Your task to perform on an android device: Do I have any events today? Image 0: 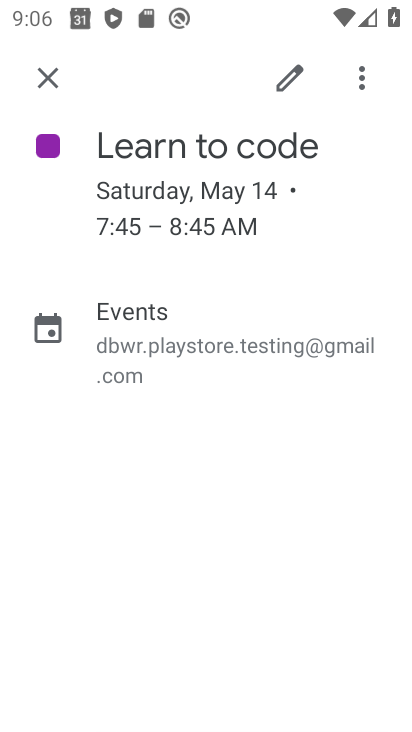
Step 0: click (54, 77)
Your task to perform on an android device: Do I have any events today? Image 1: 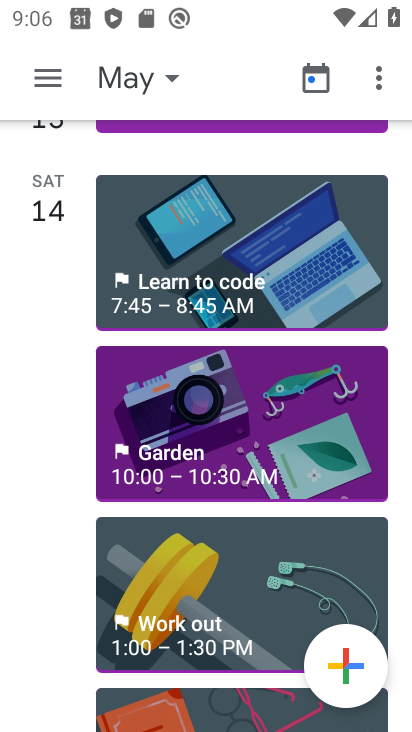
Step 1: press back button
Your task to perform on an android device: Do I have any events today? Image 2: 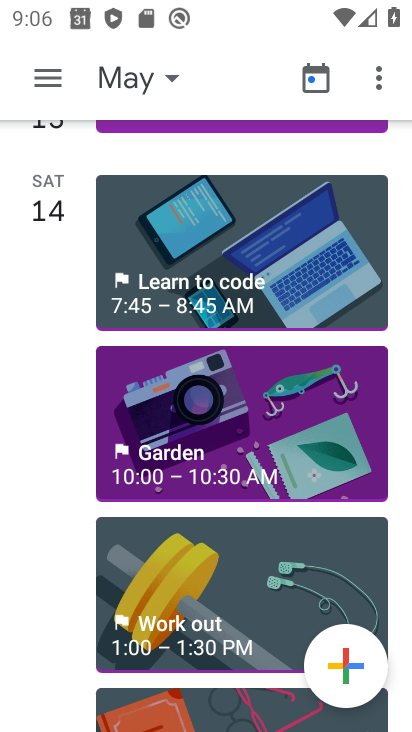
Step 2: press back button
Your task to perform on an android device: Do I have any events today? Image 3: 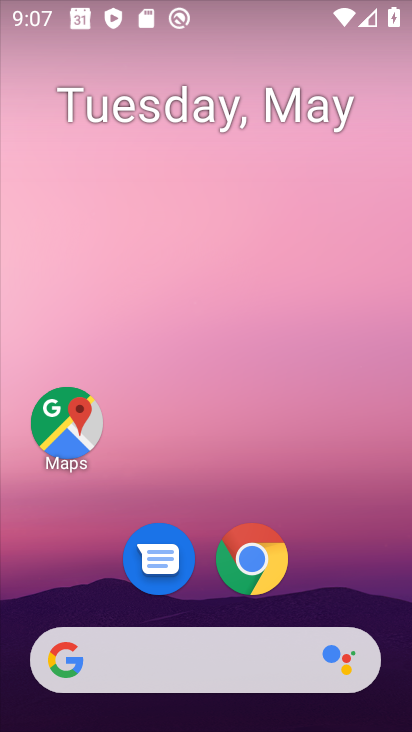
Step 3: drag from (344, 551) to (326, 270)
Your task to perform on an android device: Do I have any events today? Image 4: 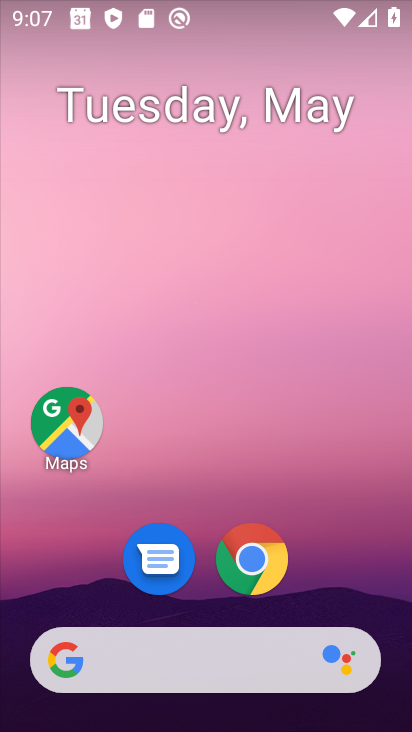
Step 4: drag from (334, 520) to (203, 169)
Your task to perform on an android device: Do I have any events today? Image 5: 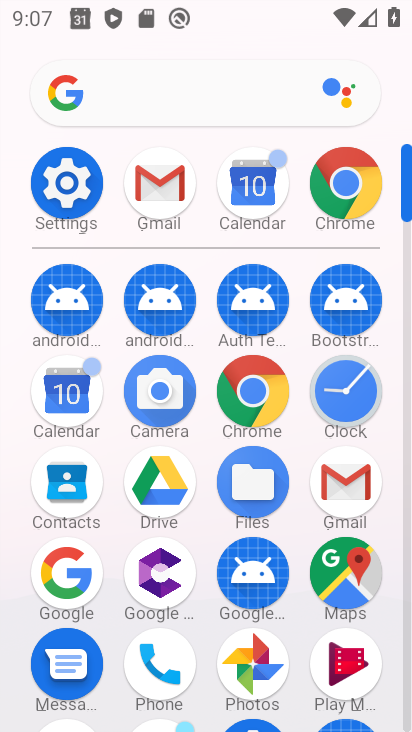
Step 5: click (72, 399)
Your task to perform on an android device: Do I have any events today? Image 6: 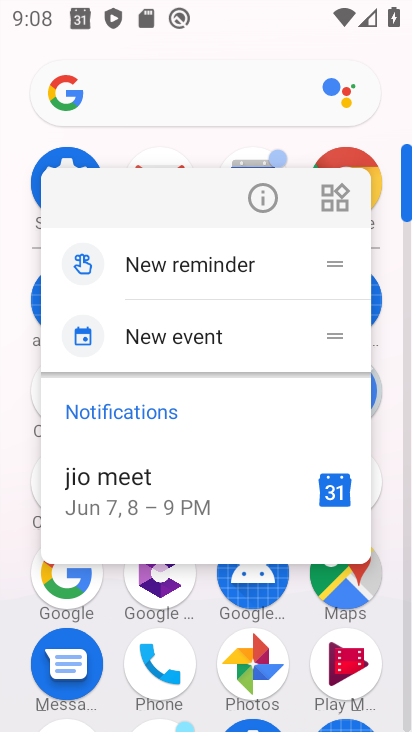
Step 6: press back button
Your task to perform on an android device: Do I have any events today? Image 7: 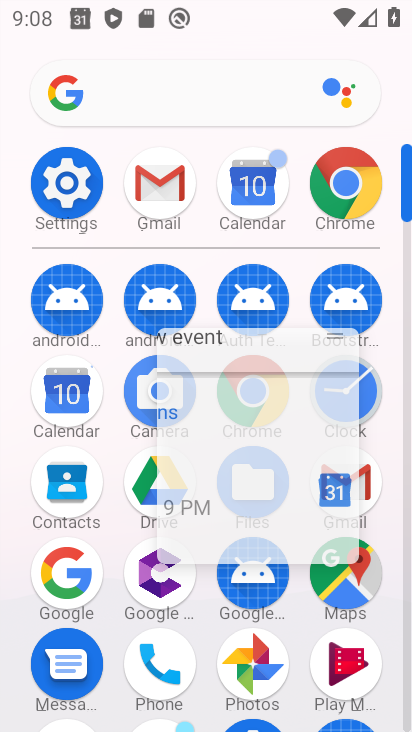
Step 7: press back button
Your task to perform on an android device: Do I have any events today? Image 8: 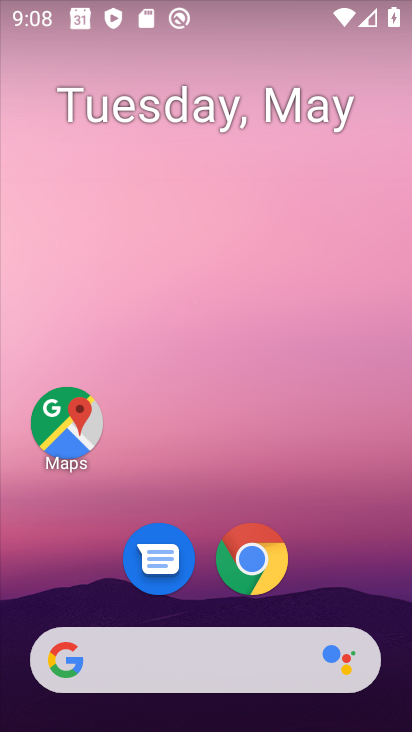
Step 8: drag from (321, 551) to (183, 7)
Your task to perform on an android device: Do I have any events today? Image 9: 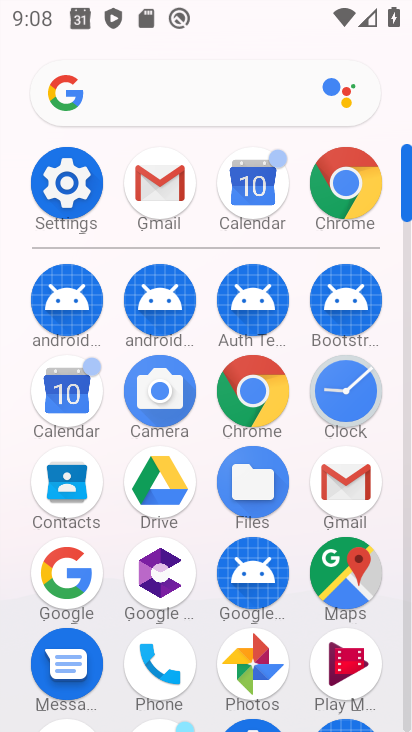
Step 9: click (73, 406)
Your task to perform on an android device: Do I have any events today? Image 10: 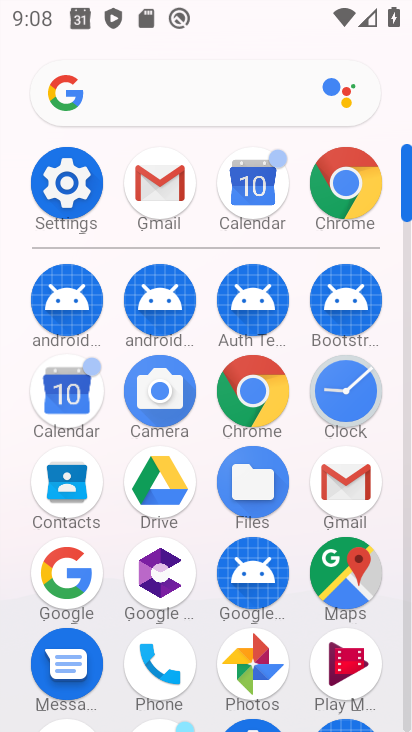
Step 10: click (73, 405)
Your task to perform on an android device: Do I have any events today? Image 11: 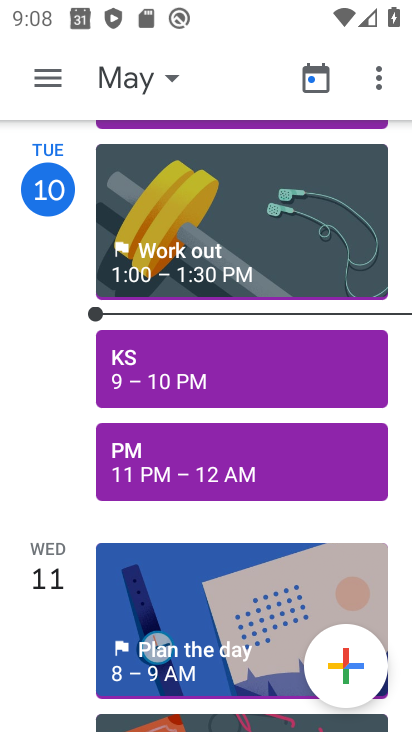
Step 11: click (164, 75)
Your task to perform on an android device: Do I have any events today? Image 12: 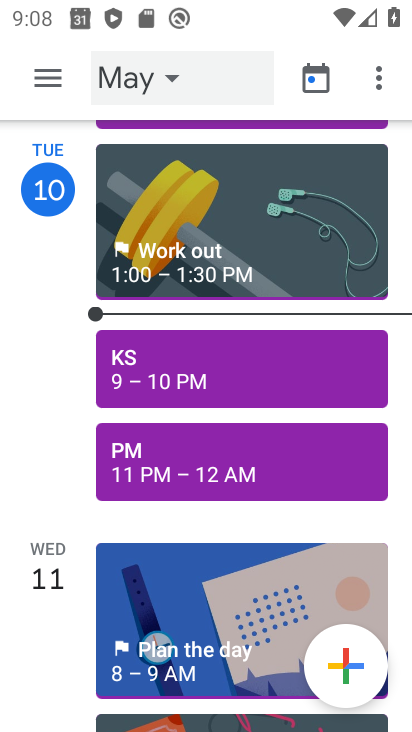
Step 12: click (168, 77)
Your task to perform on an android device: Do I have any events today? Image 13: 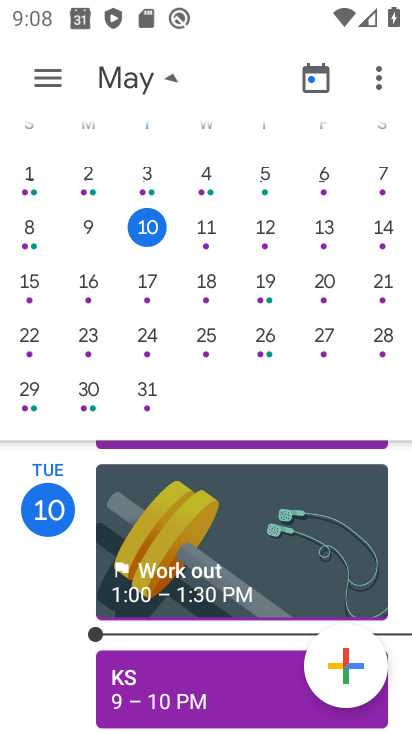
Step 13: click (168, 77)
Your task to perform on an android device: Do I have any events today? Image 14: 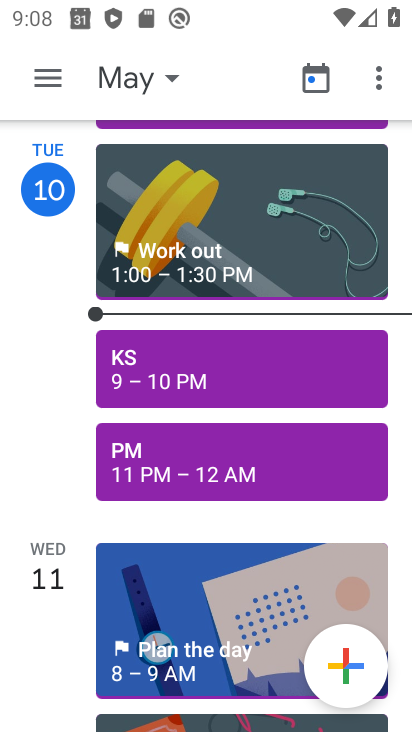
Step 14: drag from (282, 296) to (123, 369)
Your task to perform on an android device: Do I have any events today? Image 15: 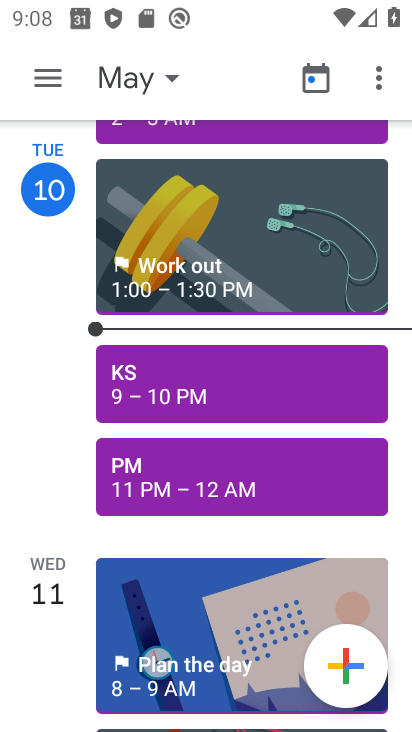
Step 15: click (171, 78)
Your task to perform on an android device: Do I have any events today? Image 16: 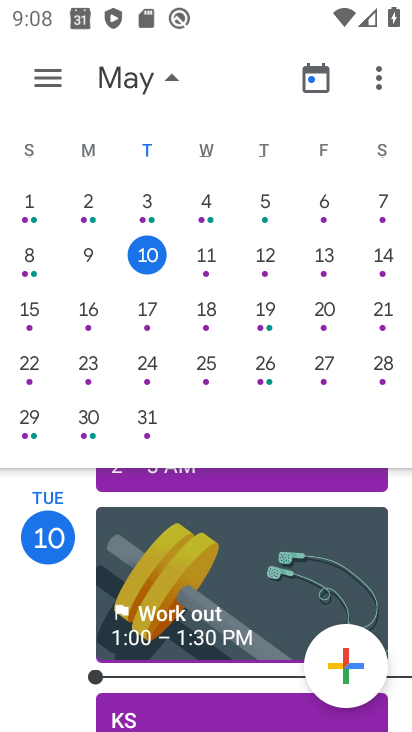
Step 16: drag from (259, 285) to (21, 334)
Your task to perform on an android device: Do I have any events today? Image 17: 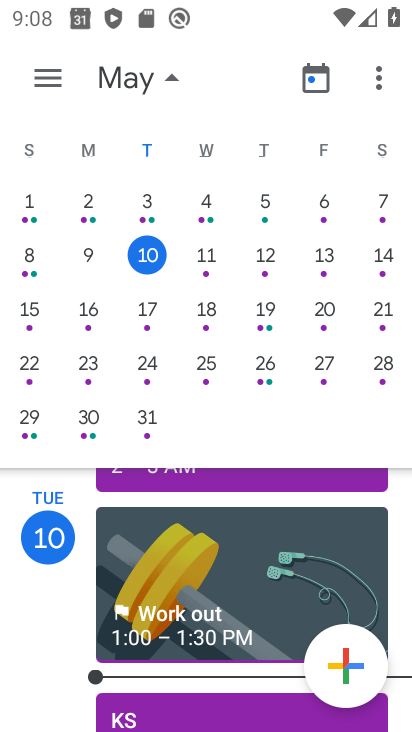
Step 17: drag from (300, 307) to (24, 341)
Your task to perform on an android device: Do I have any events today? Image 18: 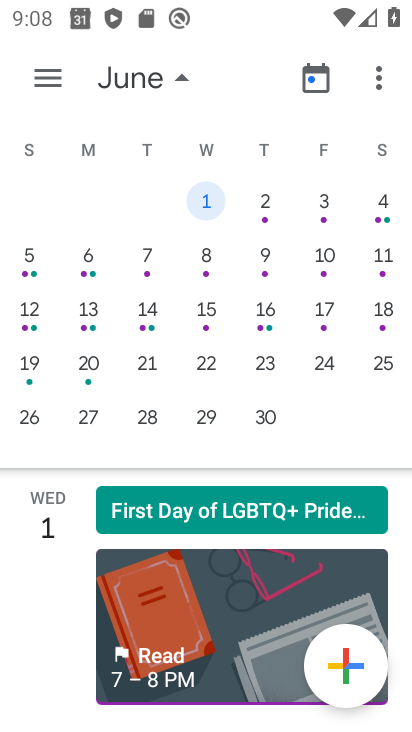
Step 18: drag from (229, 286) to (23, 388)
Your task to perform on an android device: Do I have any events today? Image 19: 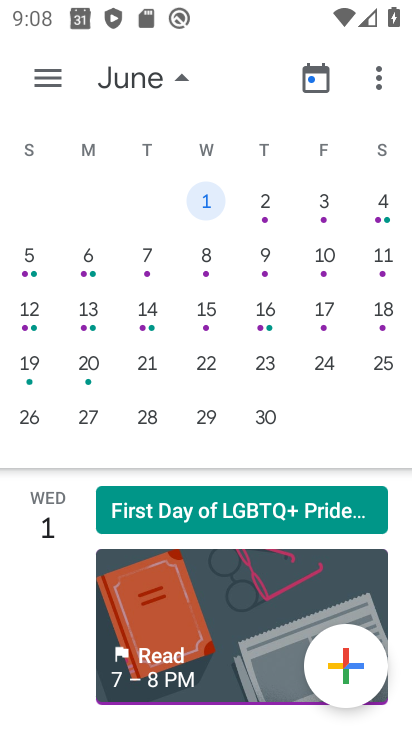
Step 19: drag from (78, 364) to (5, 300)
Your task to perform on an android device: Do I have any events today? Image 20: 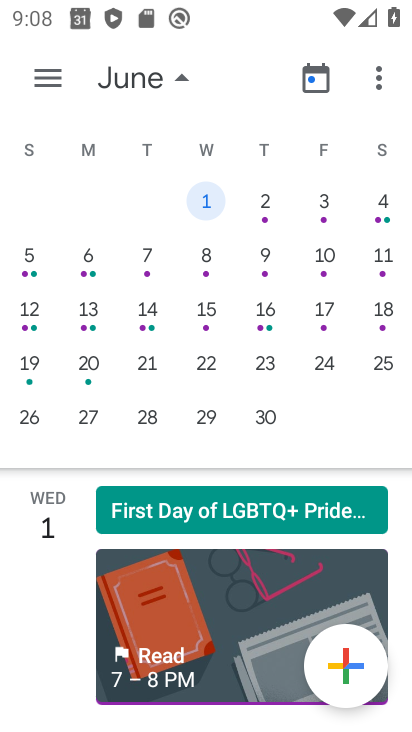
Step 20: drag from (320, 270) to (5, 311)
Your task to perform on an android device: Do I have any events today? Image 21: 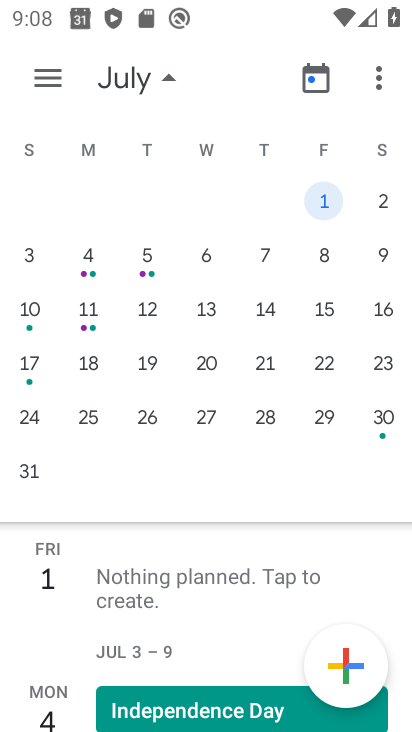
Step 21: drag from (97, 269) to (284, 311)
Your task to perform on an android device: Do I have any events today? Image 22: 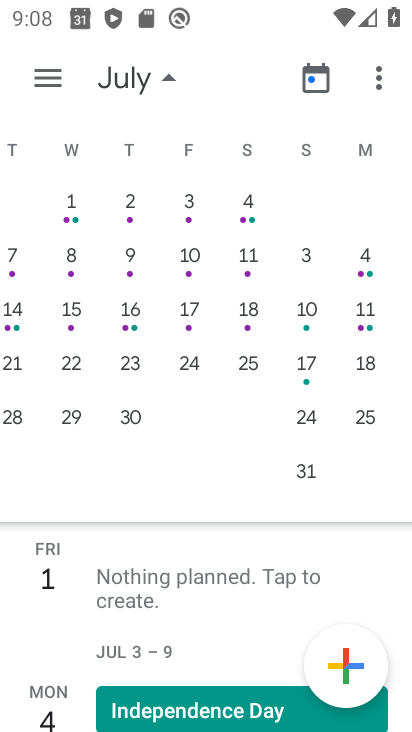
Step 22: drag from (179, 332) to (397, 347)
Your task to perform on an android device: Do I have any events today? Image 23: 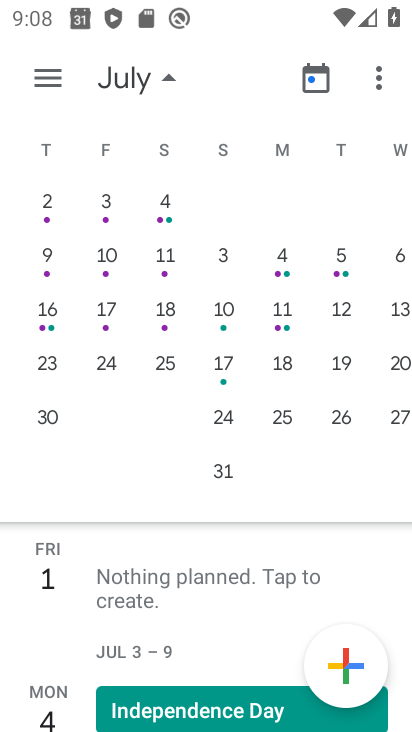
Step 23: drag from (113, 317) to (401, 293)
Your task to perform on an android device: Do I have any events today? Image 24: 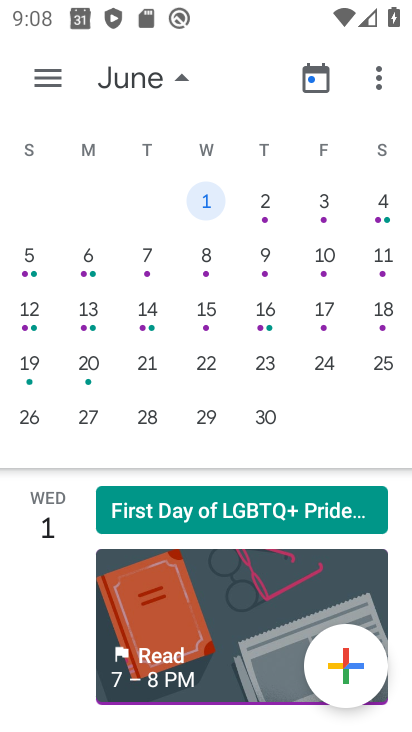
Step 24: drag from (373, 280) to (407, 260)
Your task to perform on an android device: Do I have any events today? Image 25: 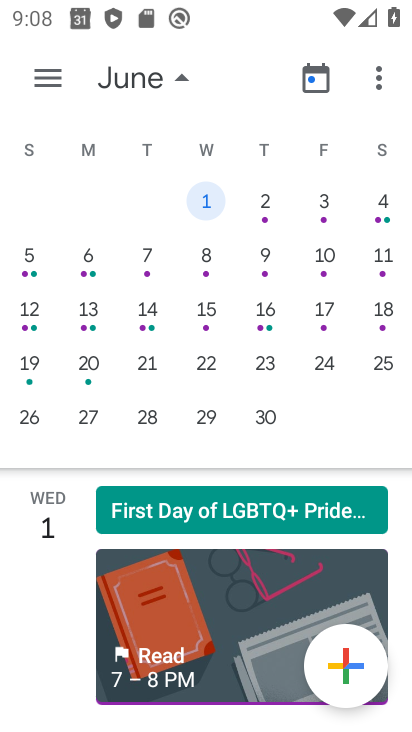
Step 25: drag from (123, 250) to (385, 295)
Your task to perform on an android device: Do I have any events today? Image 26: 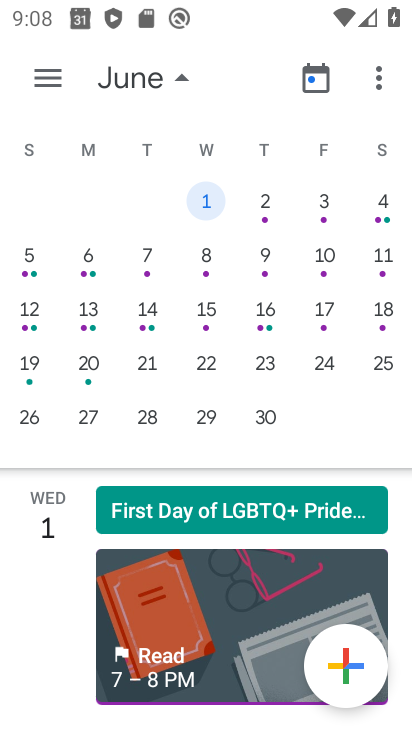
Step 26: drag from (71, 320) to (400, 319)
Your task to perform on an android device: Do I have any events today? Image 27: 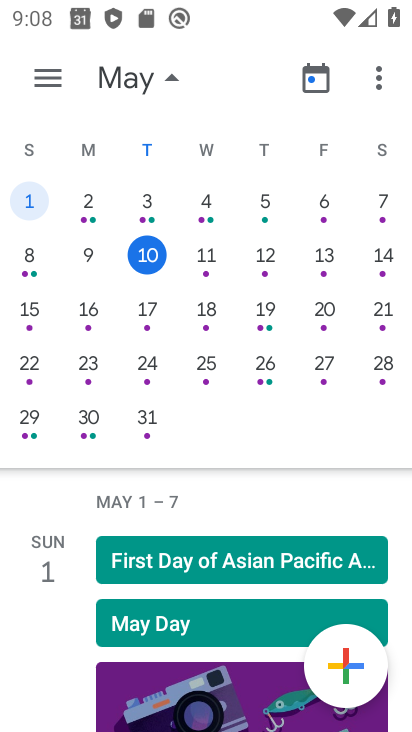
Step 27: drag from (229, 292) to (42, 335)
Your task to perform on an android device: Do I have any events today? Image 28: 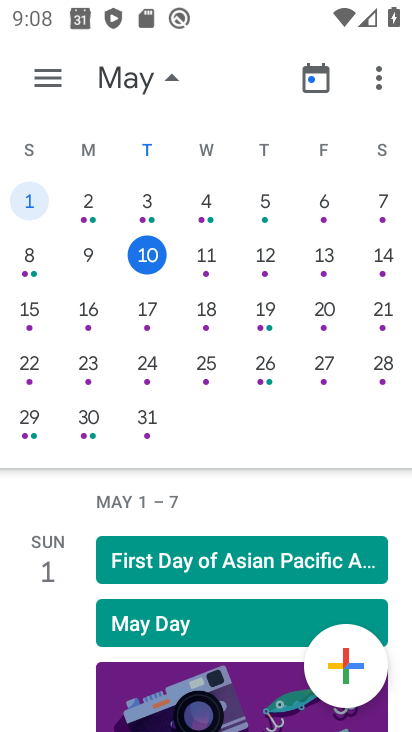
Step 28: drag from (302, 286) to (94, 321)
Your task to perform on an android device: Do I have any events today? Image 29: 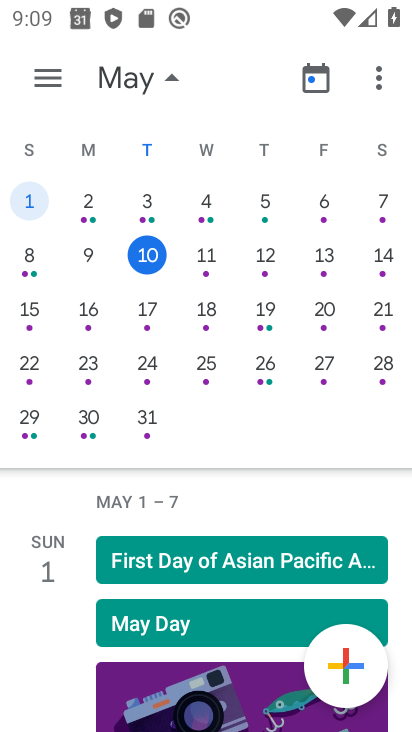
Step 29: drag from (212, 306) to (3, 311)
Your task to perform on an android device: Do I have any events today? Image 30: 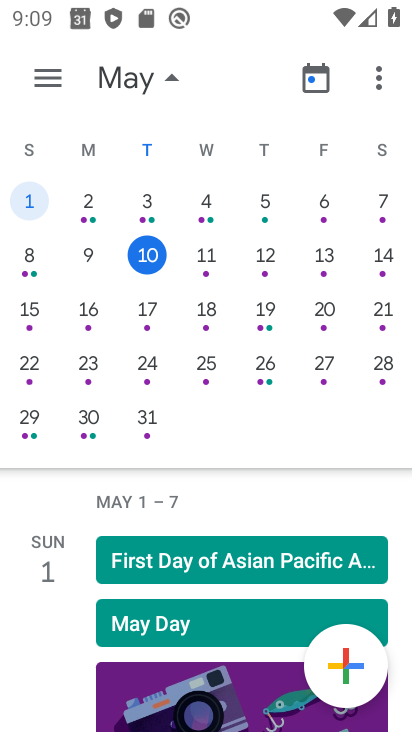
Step 30: drag from (197, 291) to (37, 254)
Your task to perform on an android device: Do I have any events today? Image 31: 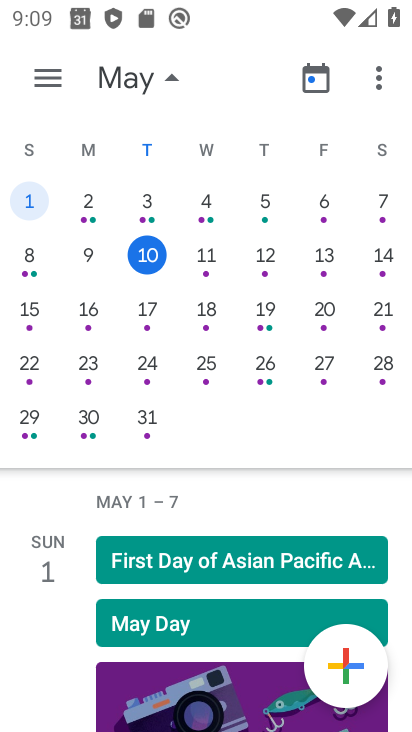
Step 31: drag from (118, 317) to (5, 318)
Your task to perform on an android device: Do I have any events today? Image 32: 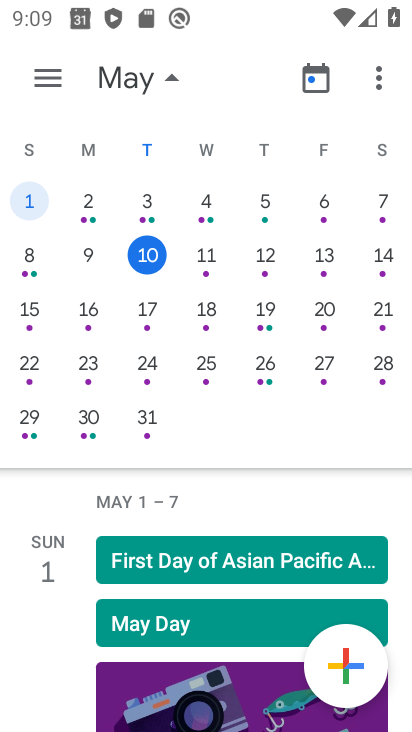
Step 32: drag from (264, 325) to (36, 319)
Your task to perform on an android device: Do I have any events today? Image 33: 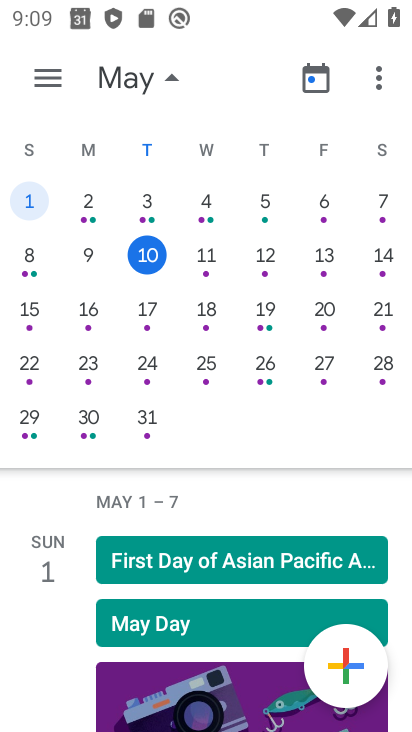
Step 33: drag from (200, 324) to (27, 308)
Your task to perform on an android device: Do I have any events today? Image 34: 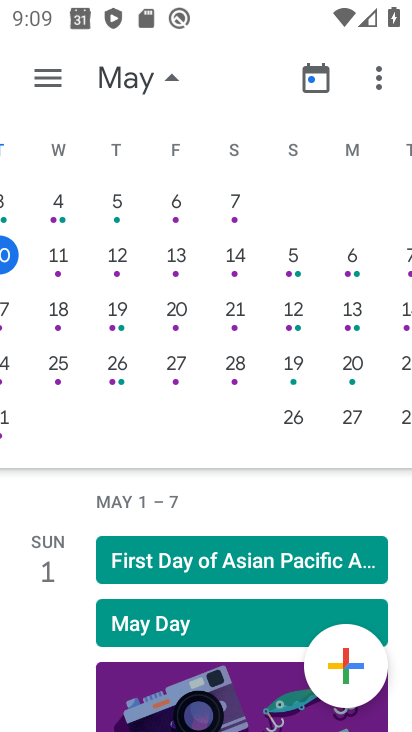
Step 34: drag from (220, 298) to (43, 299)
Your task to perform on an android device: Do I have any events today? Image 35: 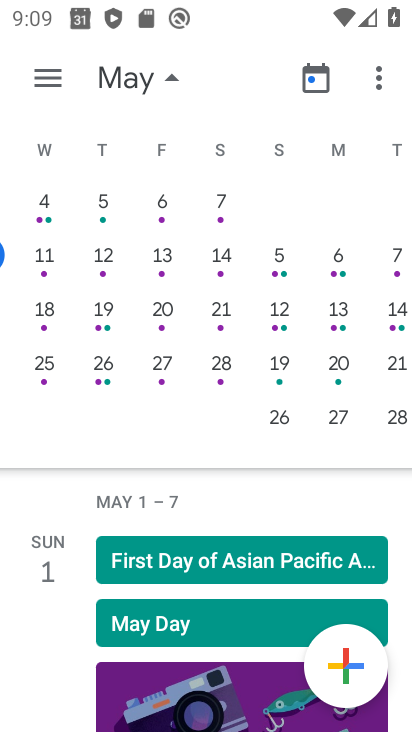
Step 35: drag from (177, 305) to (53, 304)
Your task to perform on an android device: Do I have any events today? Image 36: 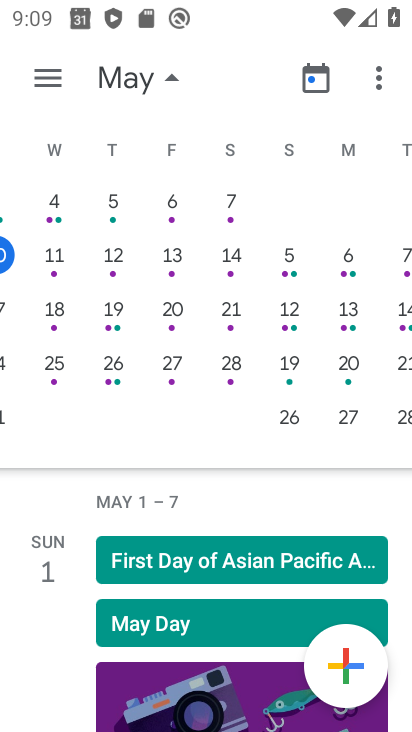
Step 36: drag from (286, 306) to (24, 312)
Your task to perform on an android device: Do I have any events today? Image 37: 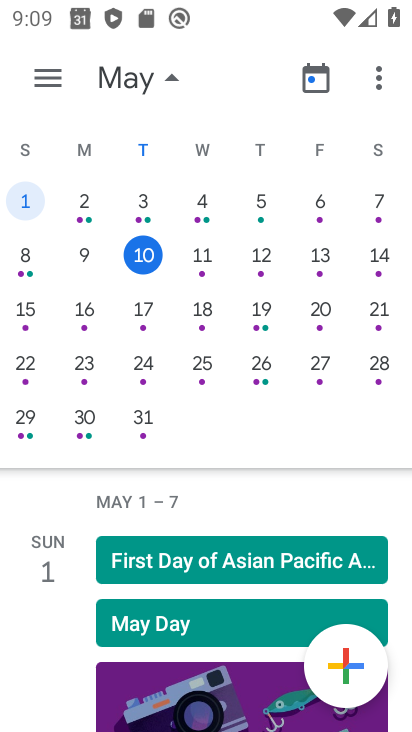
Step 37: click (53, 313)
Your task to perform on an android device: Do I have any events today? Image 38: 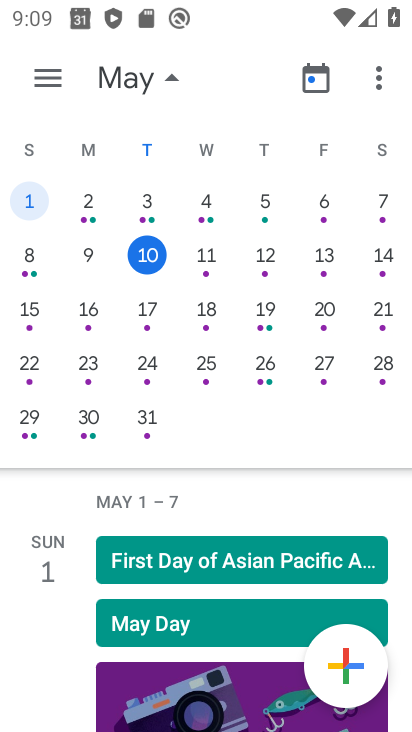
Step 38: drag from (74, 297) to (20, 262)
Your task to perform on an android device: Do I have any events today? Image 39: 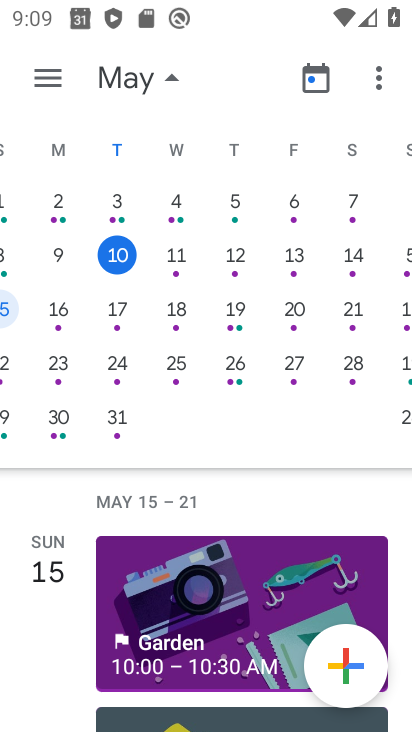
Step 39: drag from (232, 295) to (21, 282)
Your task to perform on an android device: Do I have any events today? Image 40: 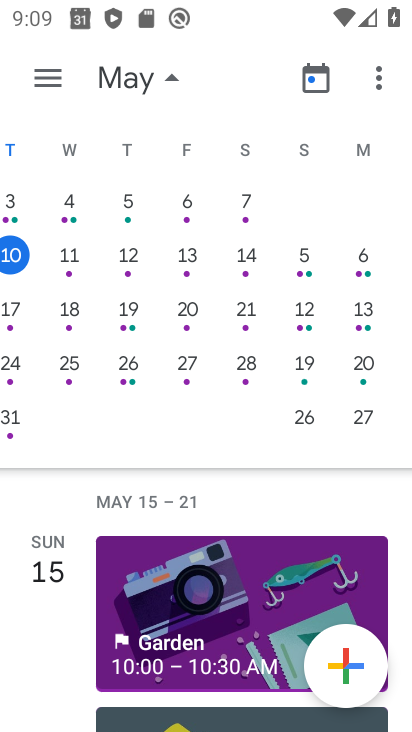
Step 40: drag from (263, 269) to (54, 281)
Your task to perform on an android device: Do I have any events today? Image 41: 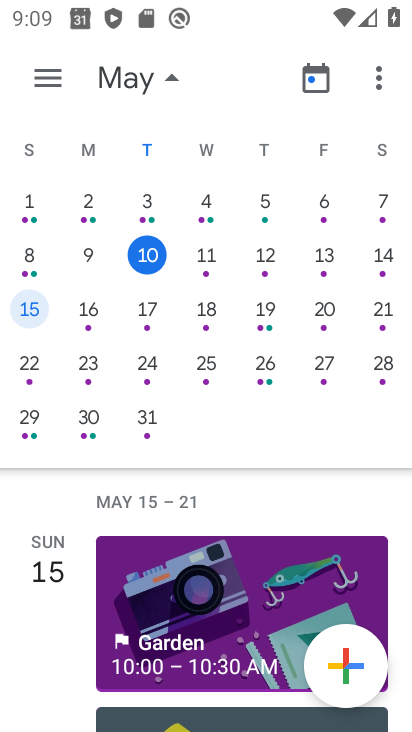
Step 41: click (196, 298)
Your task to perform on an android device: Do I have any events today? Image 42: 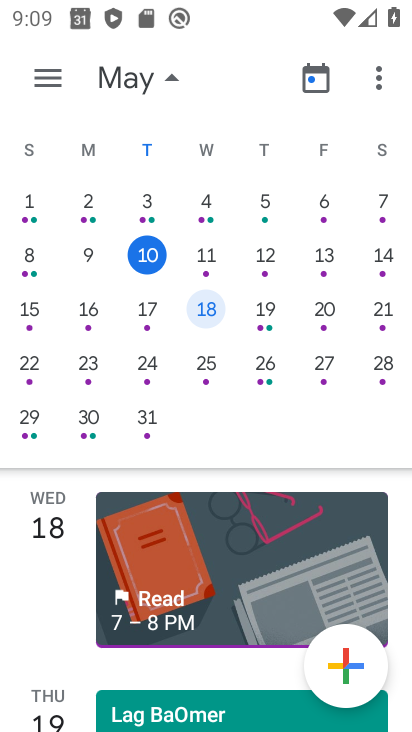
Step 42: task complete